Your task to perform on an android device: Empty the shopping cart on bestbuy. Add "bose soundlink" to the cart on bestbuy, then select checkout. Image 0: 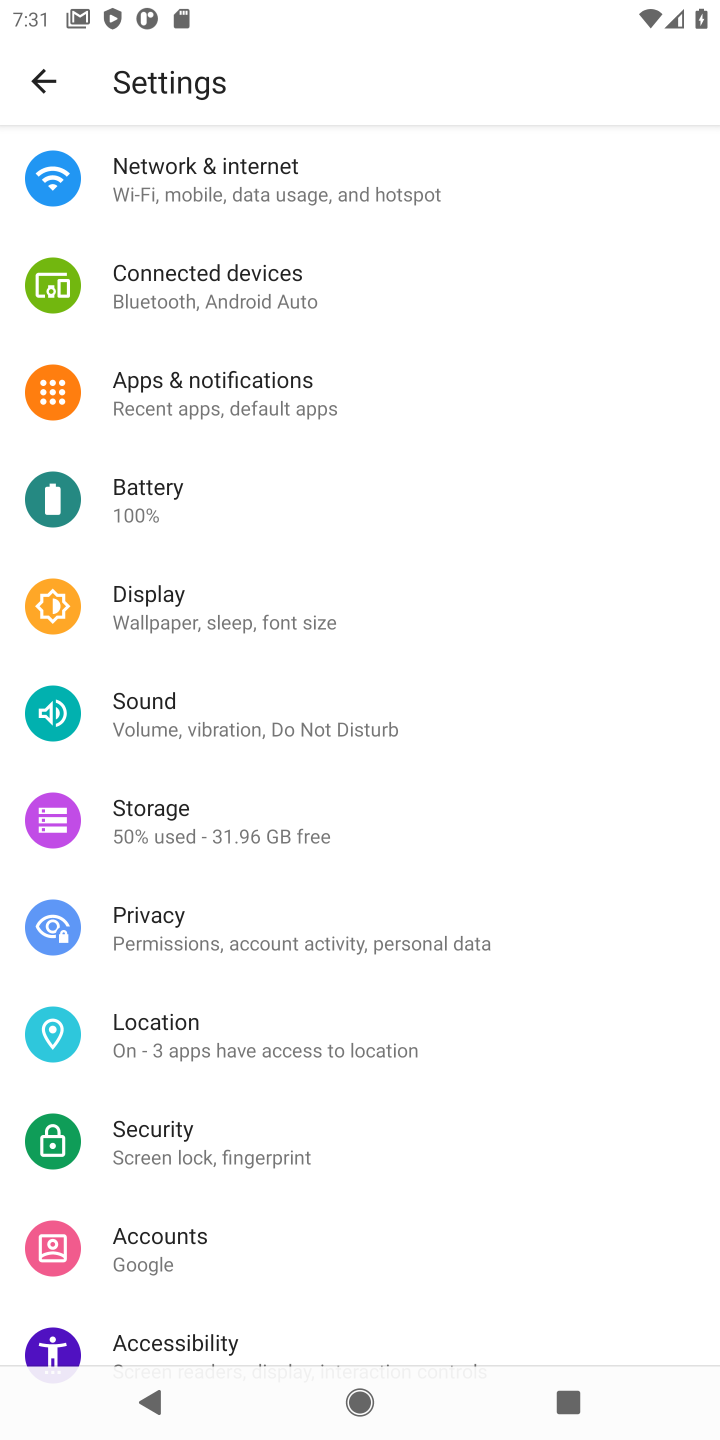
Step 0: press home button
Your task to perform on an android device: Empty the shopping cart on bestbuy. Add "bose soundlink" to the cart on bestbuy, then select checkout. Image 1: 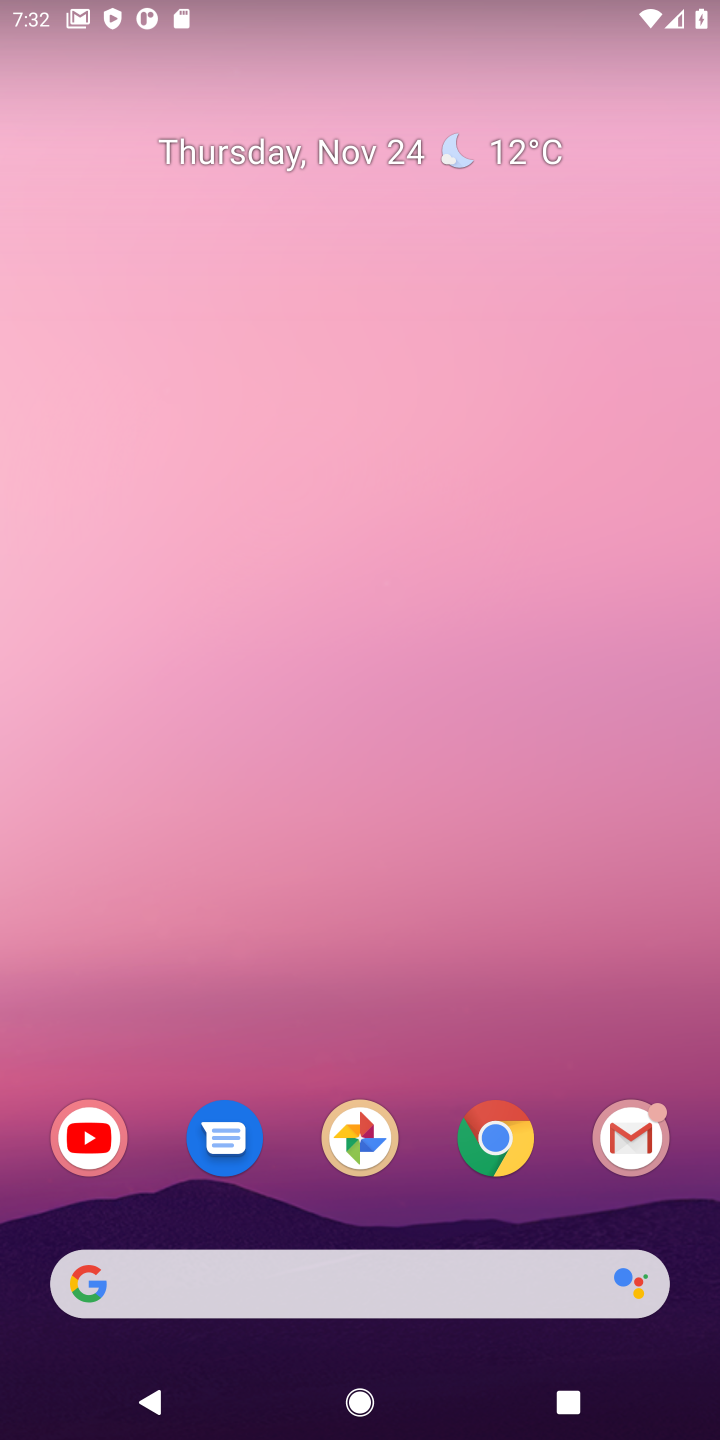
Step 1: click (499, 1136)
Your task to perform on an android device: Empty the shopping cart on bestbuy. Add "bose soundlink" to the cart on bestbuy, then select checkout. Image 2: 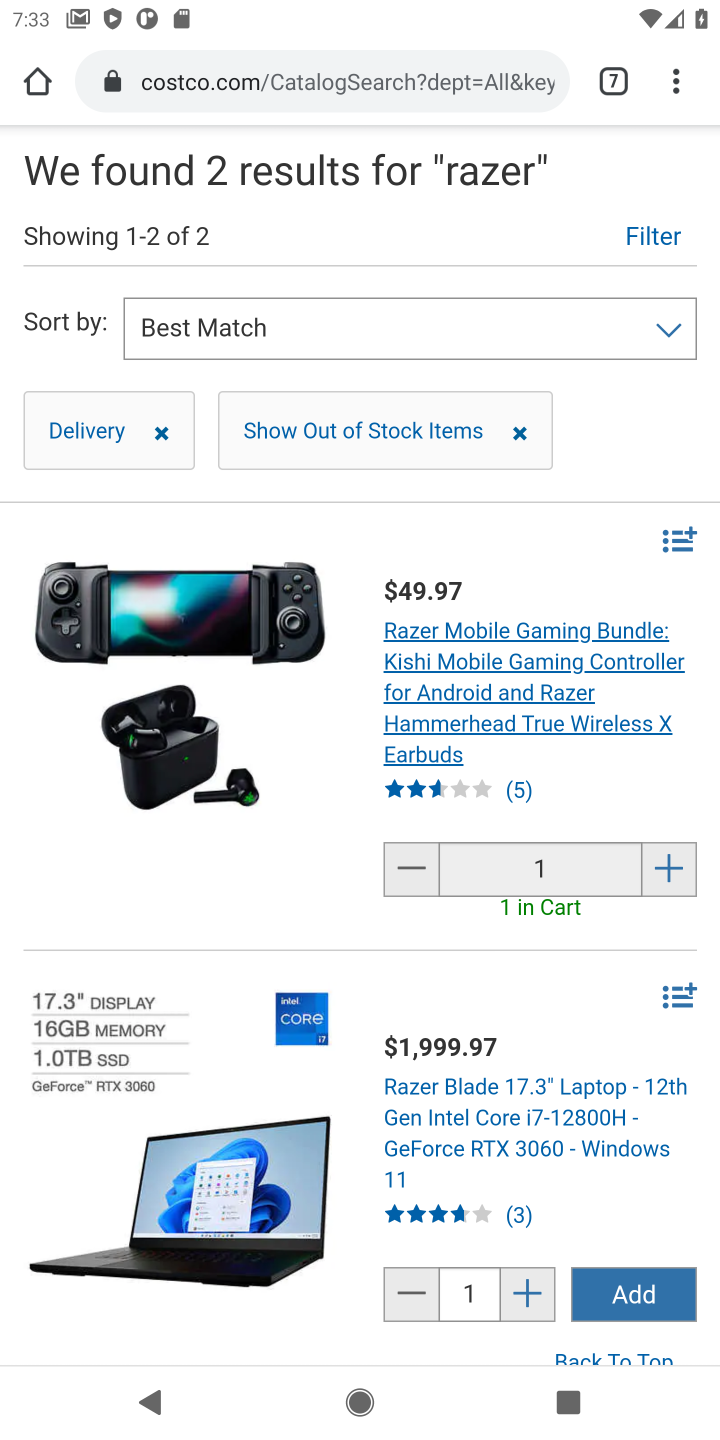
Step 2: click (609, 78)
Your task to perform on an android device: Empty the shopping cart on bestbuy. Add "bose soundlink" to the cart on bestbuy, then select checkout. Image 3: 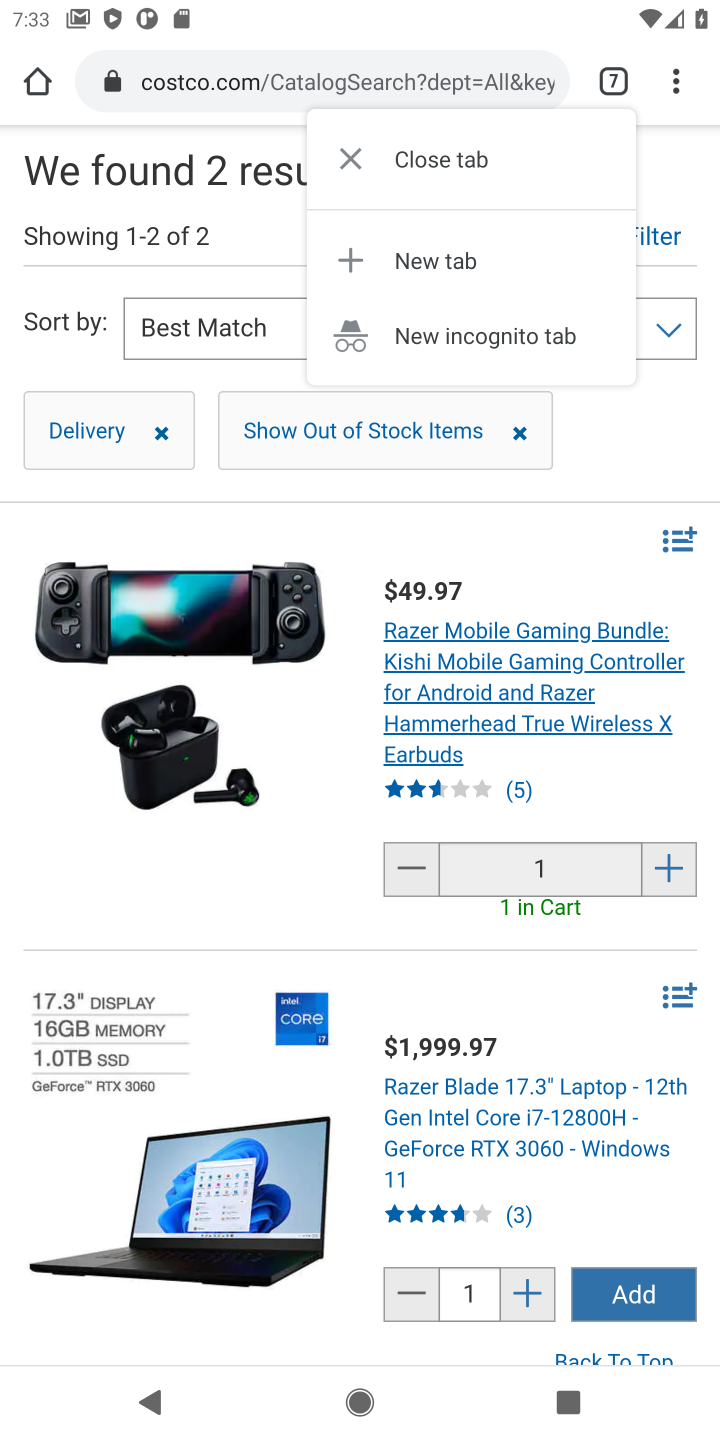
Step 3: click (463, 162)
Your task to perform on an android device: Empty the shopping cart on bestbuy. Add "bose soundlink" to the cart on bestbuy, then select checkout. Image 4: 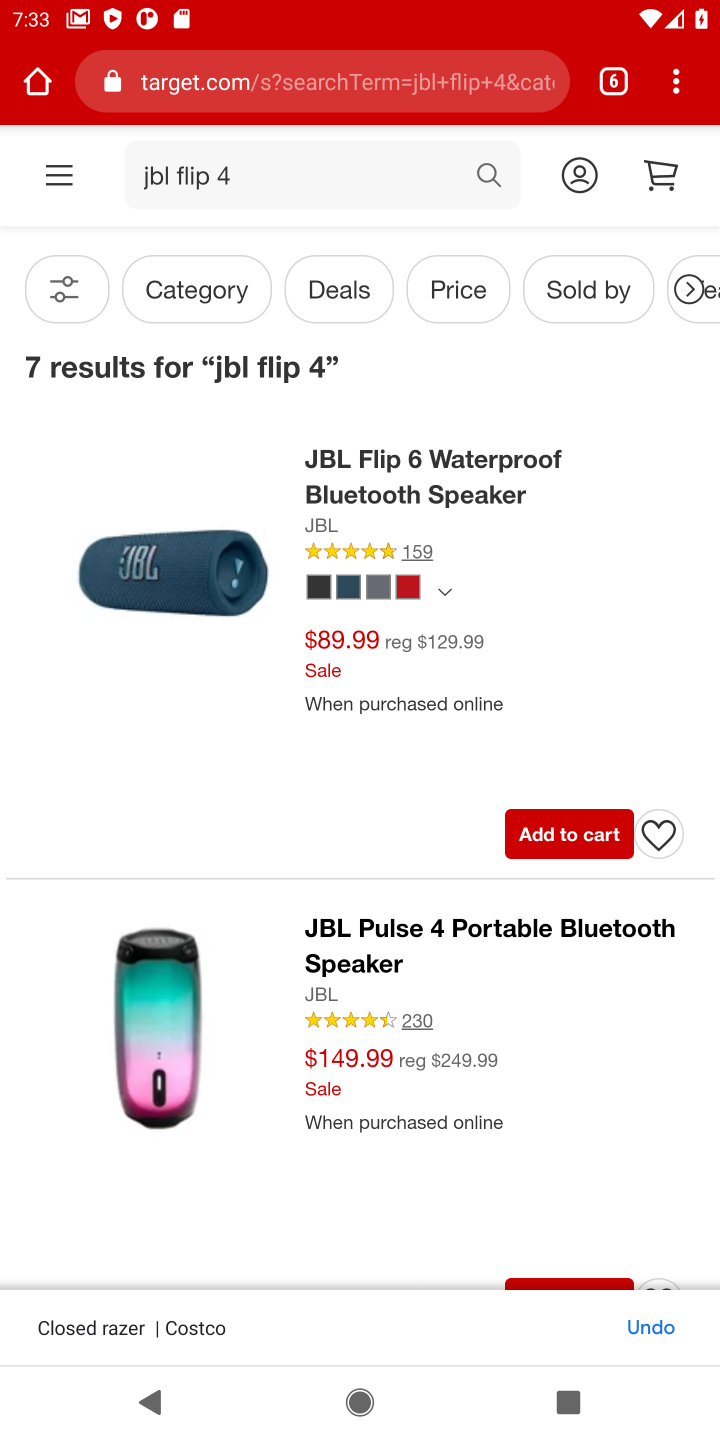
Step 4: click (620, 80)
Your task to perform on an android device: Empty the shopping cart on bestbuy. Add "bose soundlink" to the cart on bestbuy, then select checkout. Image 5: 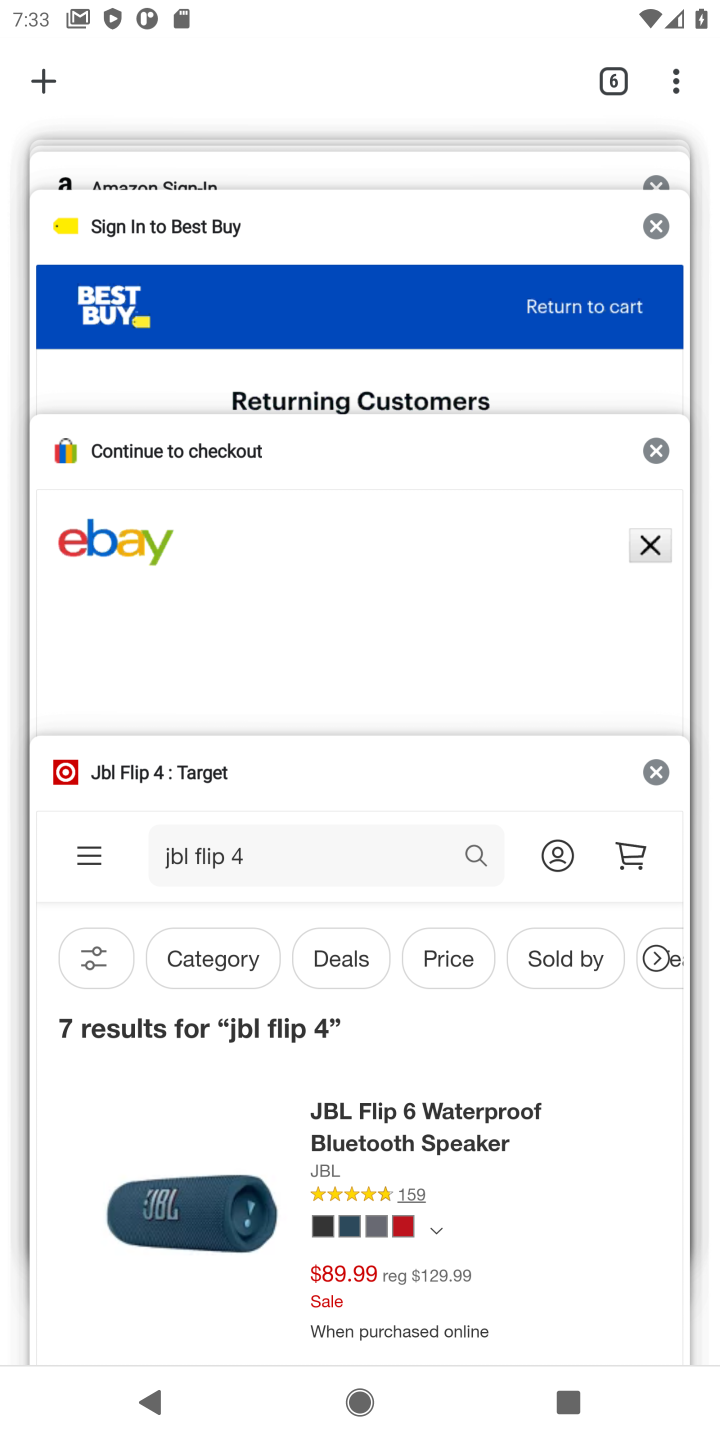
Step 5: click (57, 87)
Your task to perform on an android device: Empty the shopping cart on bestbuy. Add "bose soundlink" to the cart on bestbuy, then select checkout. Image 6: 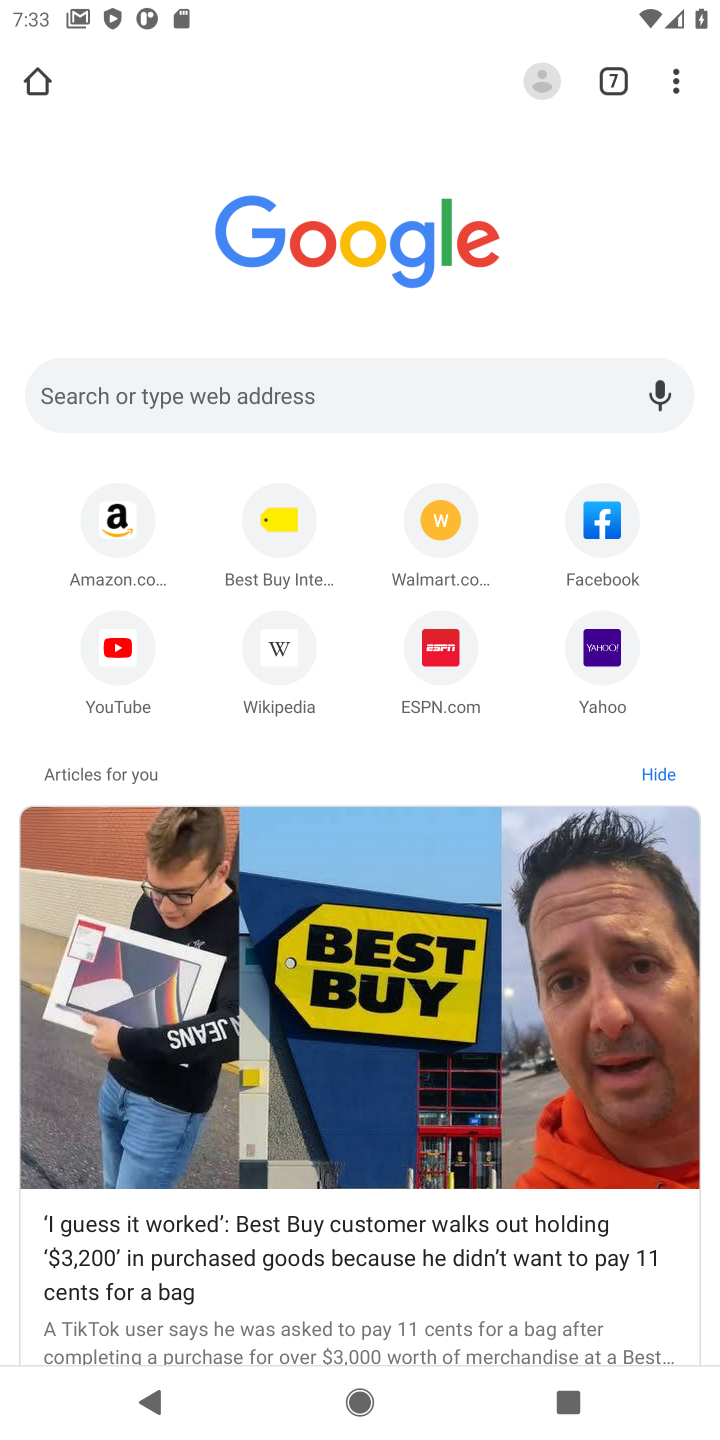
Step 6: click (251, 383)
Your task to perform on an android device: Empty the shopping cart on bestbuy. Add "bose soundlink" to the cart on bestbuy, then select checkout. Image 7: 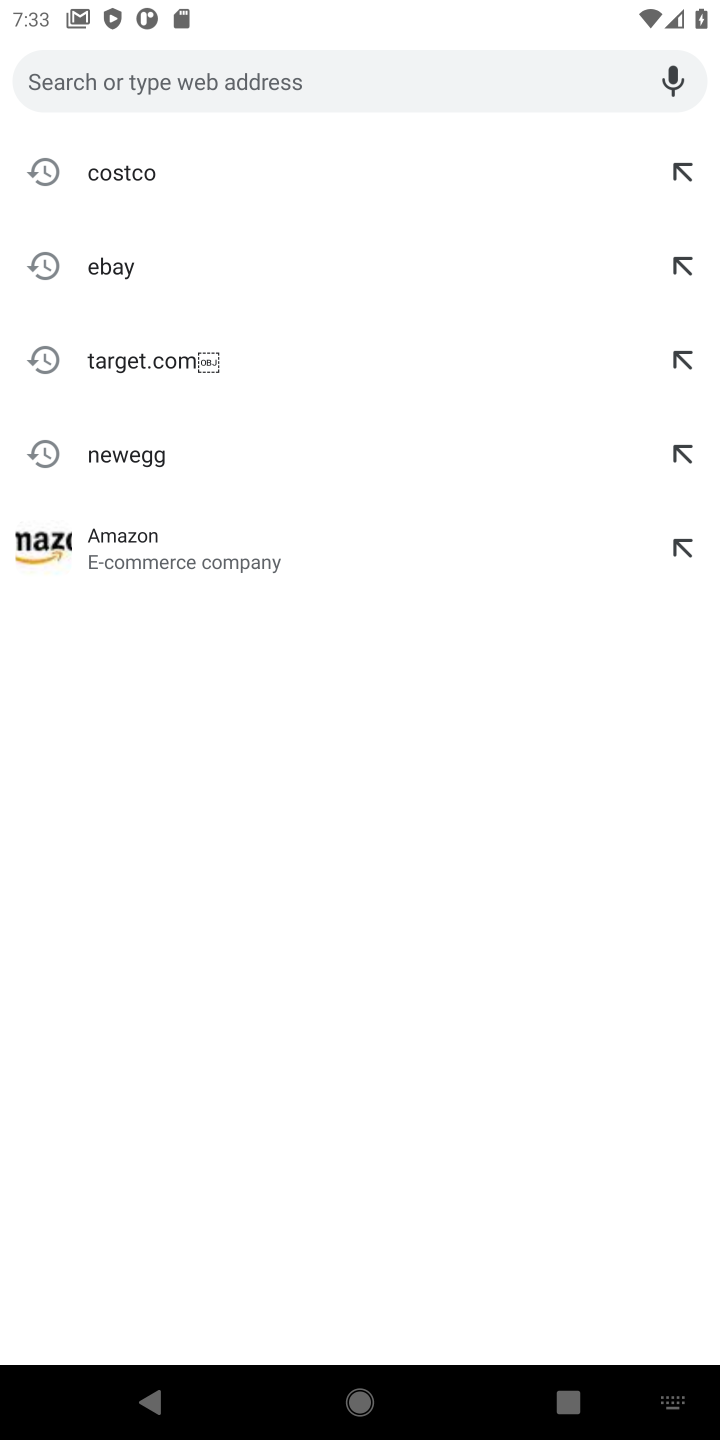
Step 7: click (212, 80)
Your task to perform on an android device: Empty the shopping cart on bestbuy. Add "bose soundlink" to the cart on bestbuy, then select checkout. Image 8: 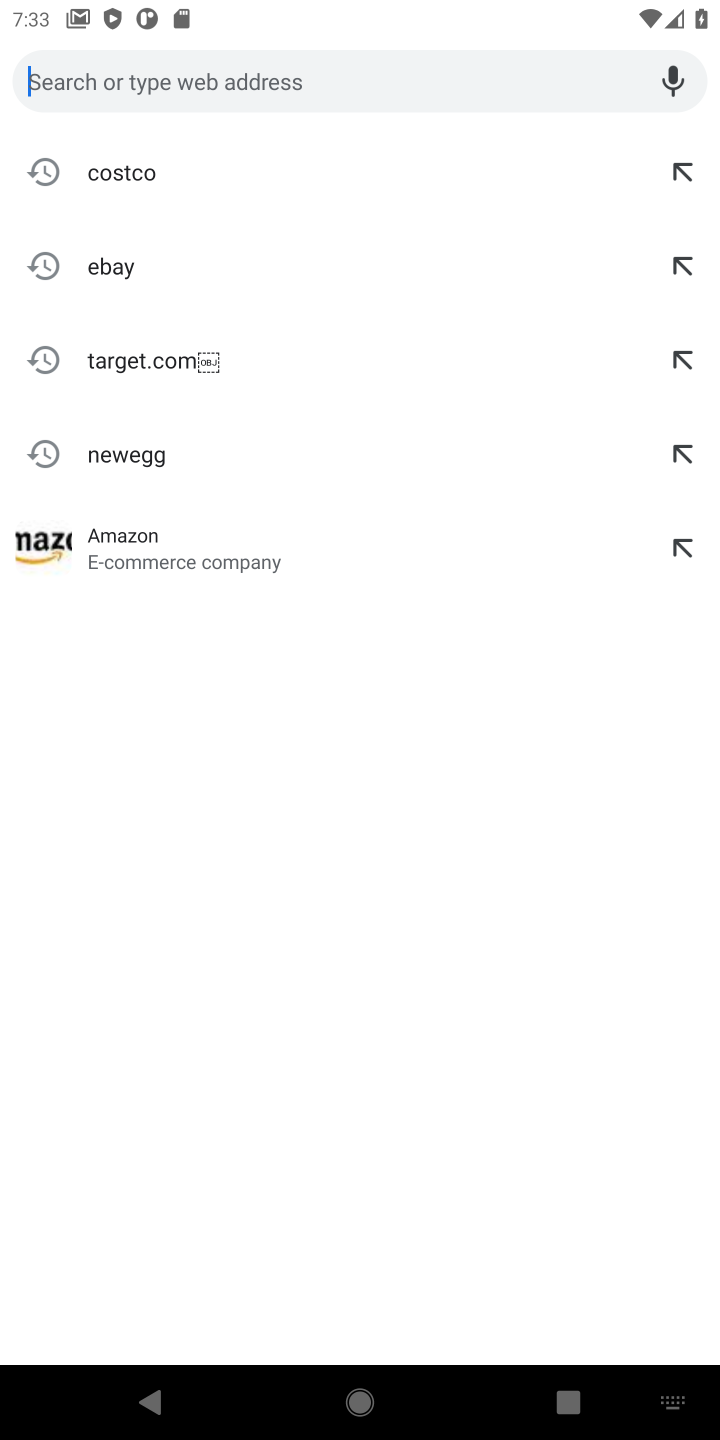
Step 8: click (402, 90)
Your task to perform on an android device: Empty the shopping cart on bestbuy. Add "bose soundlink" to the cart on bestbuy, then select checkout. Image 9: 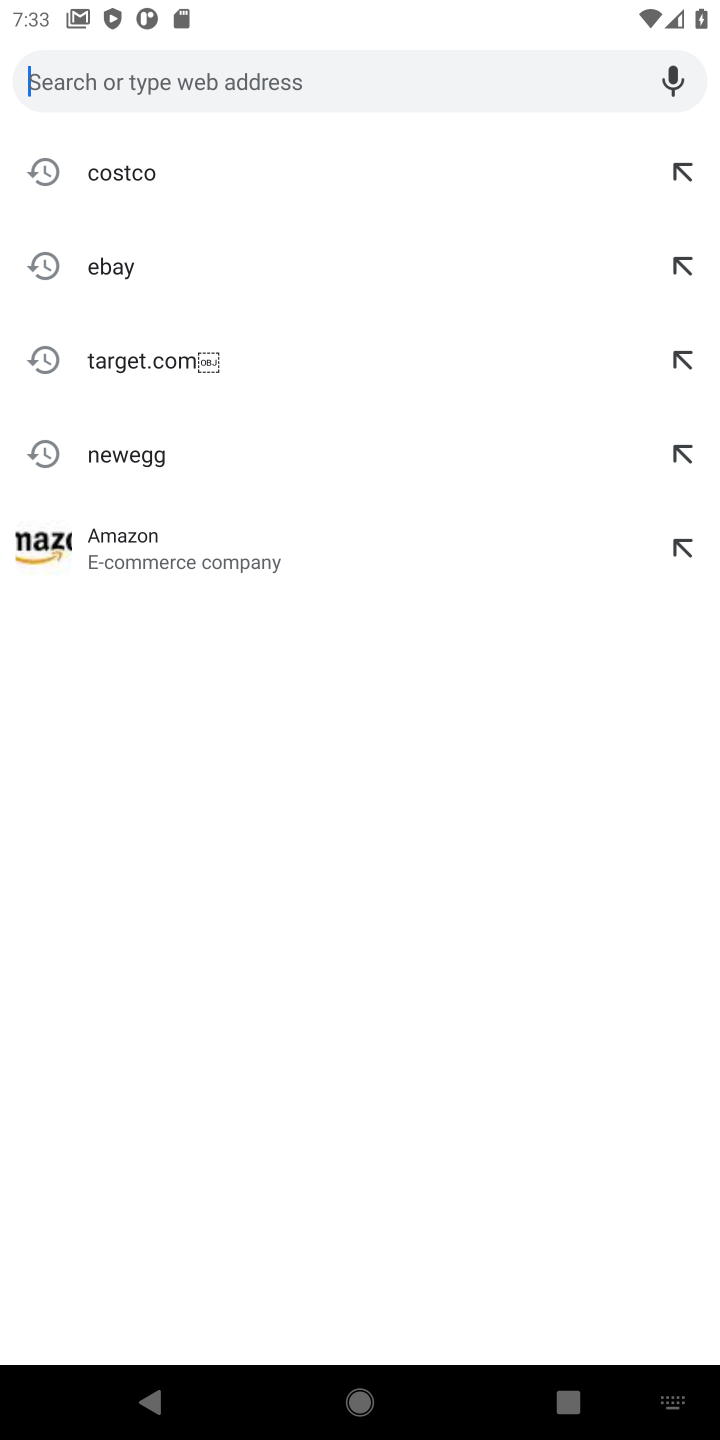
Step 9: type " bestbuy."
Your task to perform on an android device: Empty the shopping cart on bestbuy. Add "bose soundlink" to the cart on bestbuy, then select checkout. Image 10: 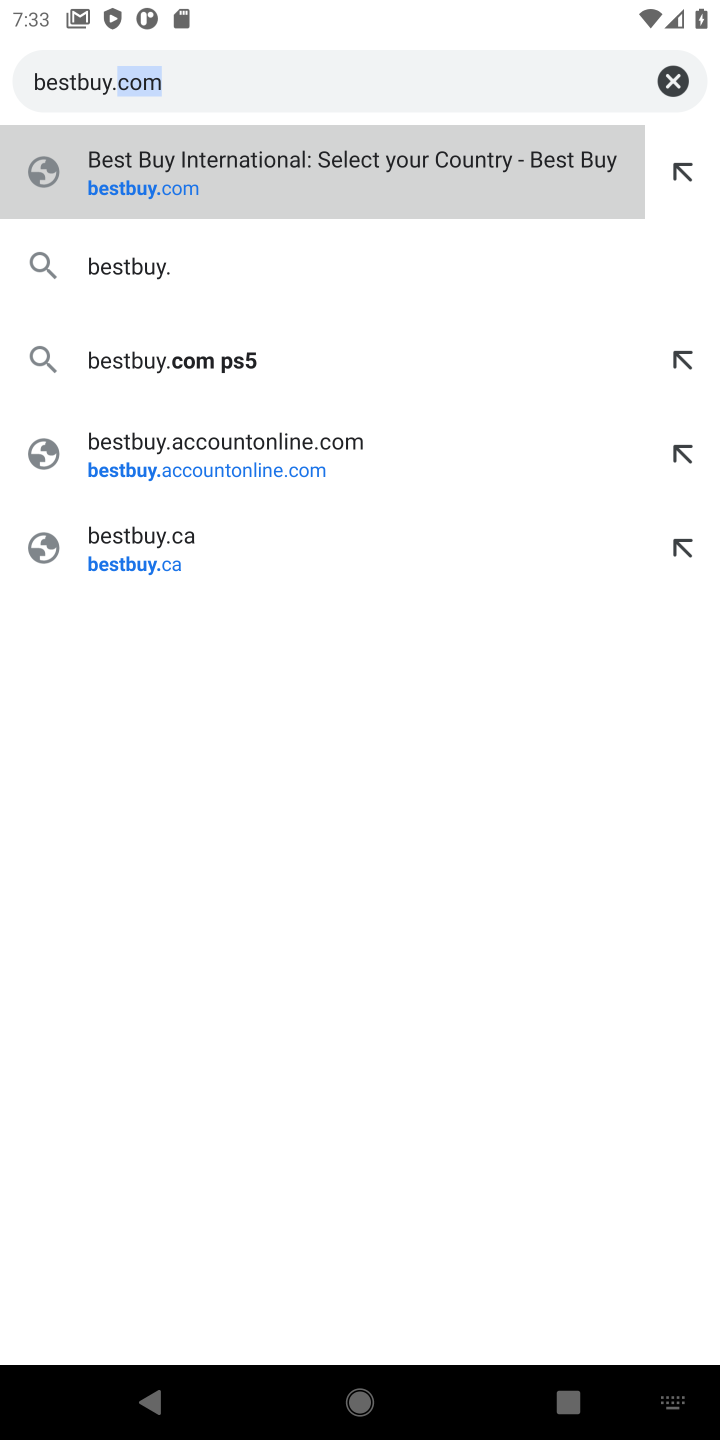
Step 10: click (292, 166)
Your task to perform on an android device: Empty the shopping cart on bestbuy. Add "bose soundlink" to the cart on bestbuy, then select checkout. Image 11: 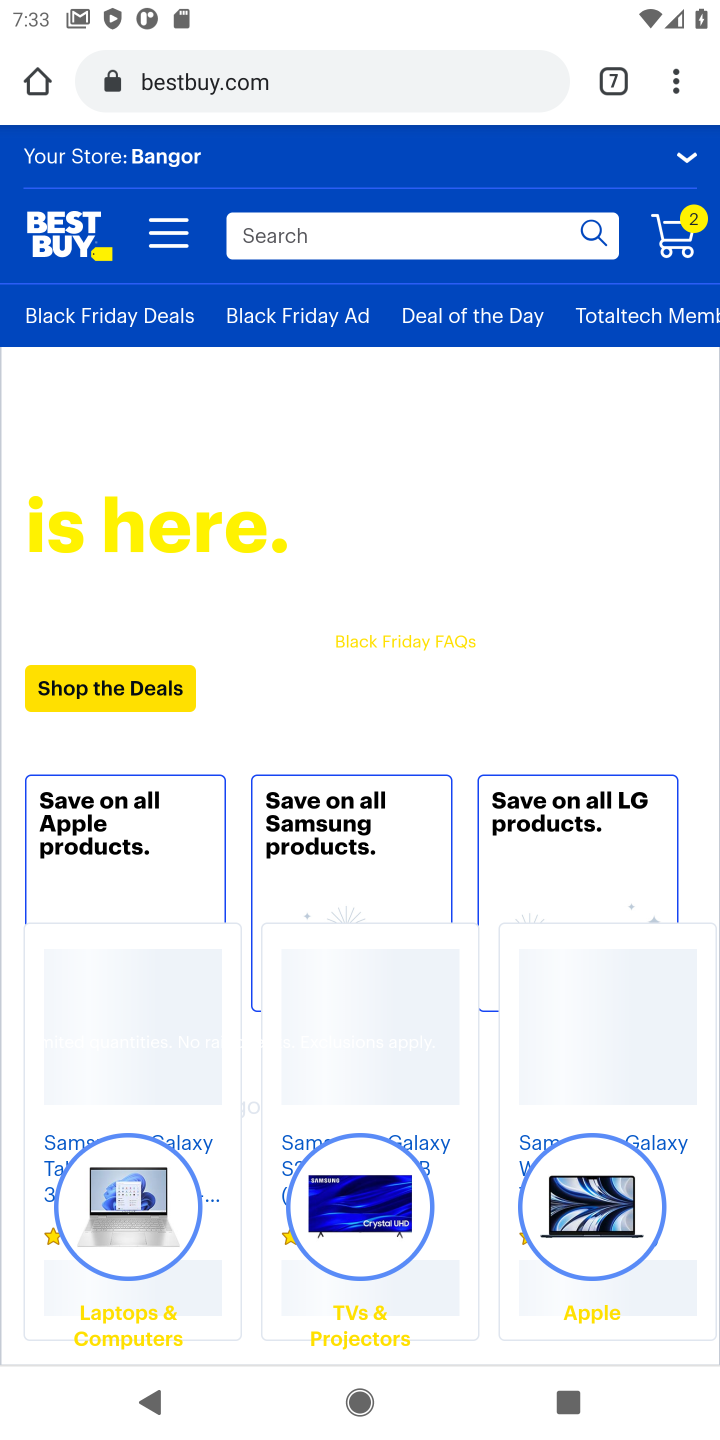
Step 11: click (320, 236)
Your task to perform on an android device: Empty the shopping cart on bestbuy. Add "bose soundlink" to the cart on bestbuy, then select checkout. Image 12: 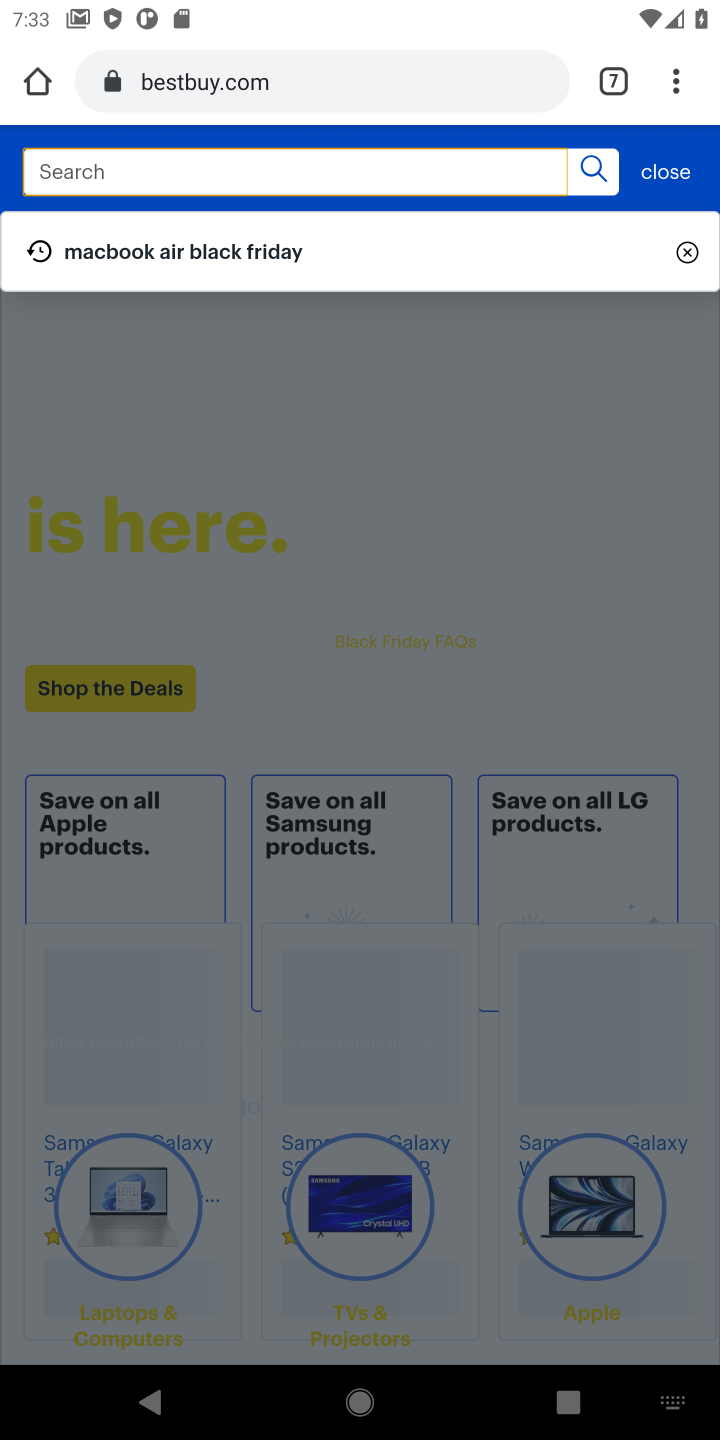
Step 12: click (341, 155)
Your task to perform on an android device: Empty the shopping cart on bestbuy. Add "bose soundlink" to the cart on bestbuy, then select checkout. Image 13: 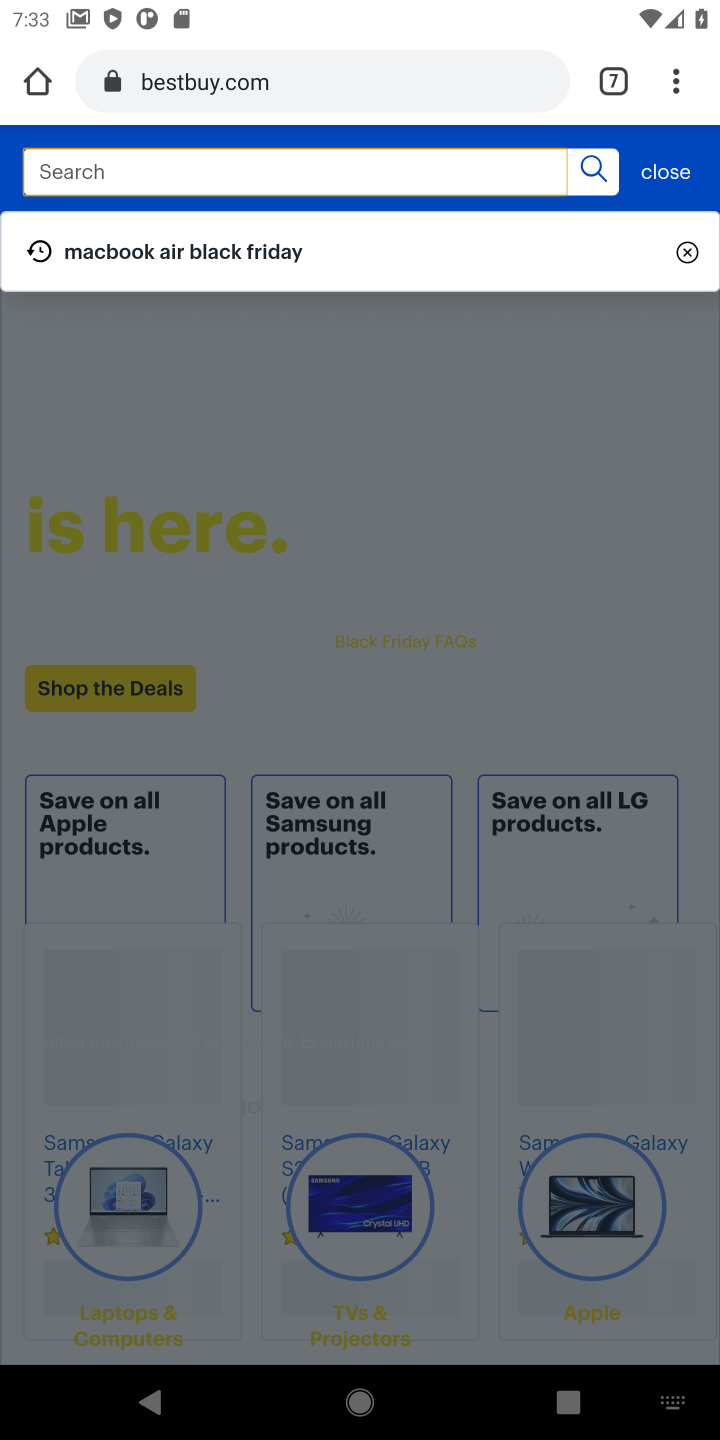
Step 13: type "bose soundlink"
Your task to perform on an android device: Empty the shopping cart on bestbuy. Add "bose soundlink" to the cart on bestbuy, then select checkout. Image 14: 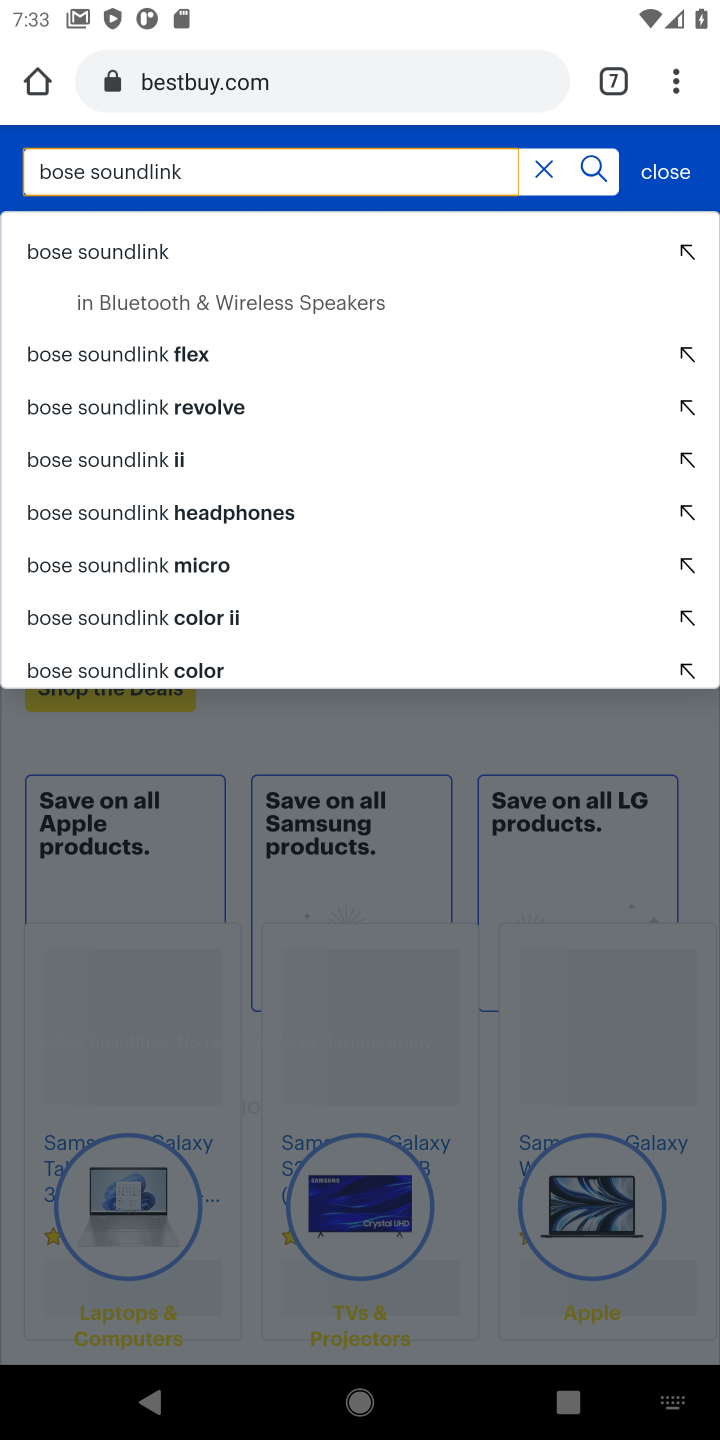
Step 14: click (139, 242)
Your task to perform on an android device: Empty the shopping cart on bestbuy. Add "bose soundlink" to the cart on bestbuy, then select checkout. Image 15: 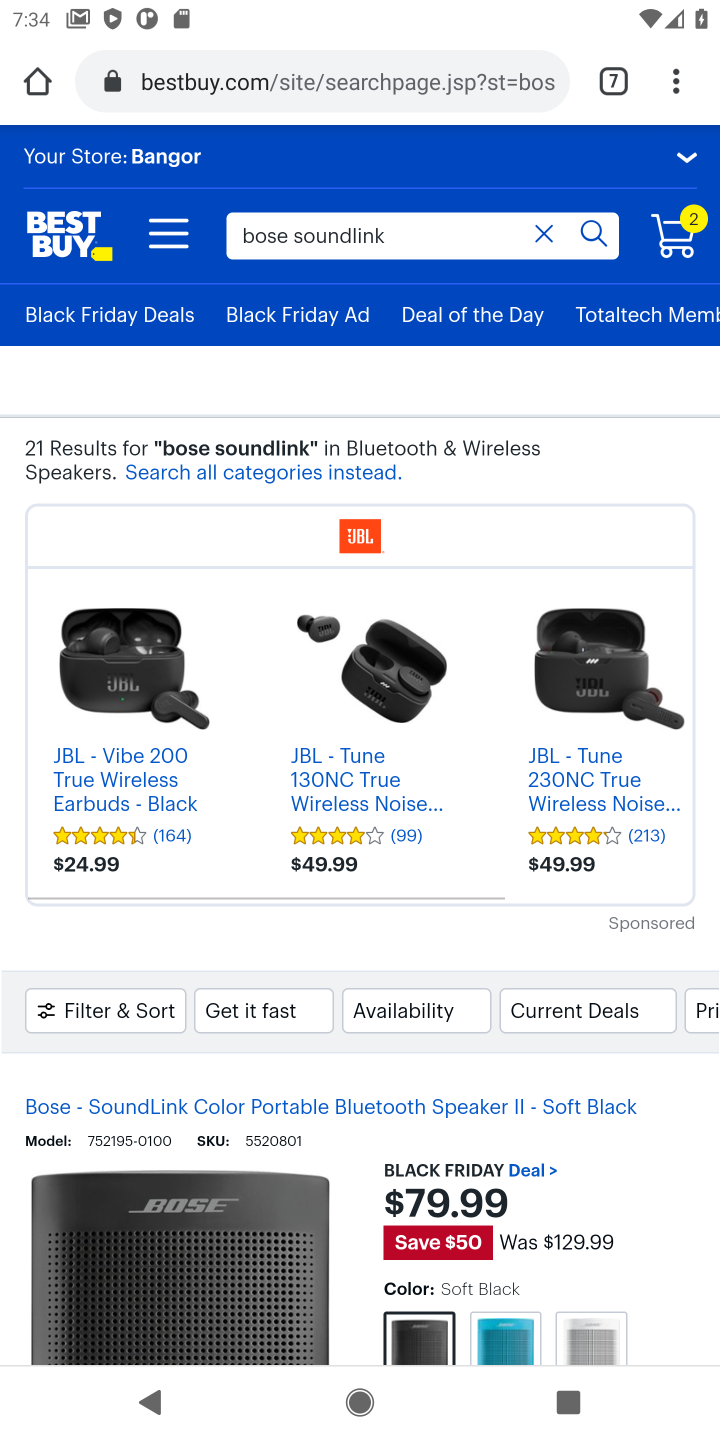
Step 15: drag from (158, 1270) to (314, 798)
Your task to perform on an android device: Empty the shopping cart on bestbuy. Add "bose soundlink" to the cart on bestbuy, then select checkout. Image 16: 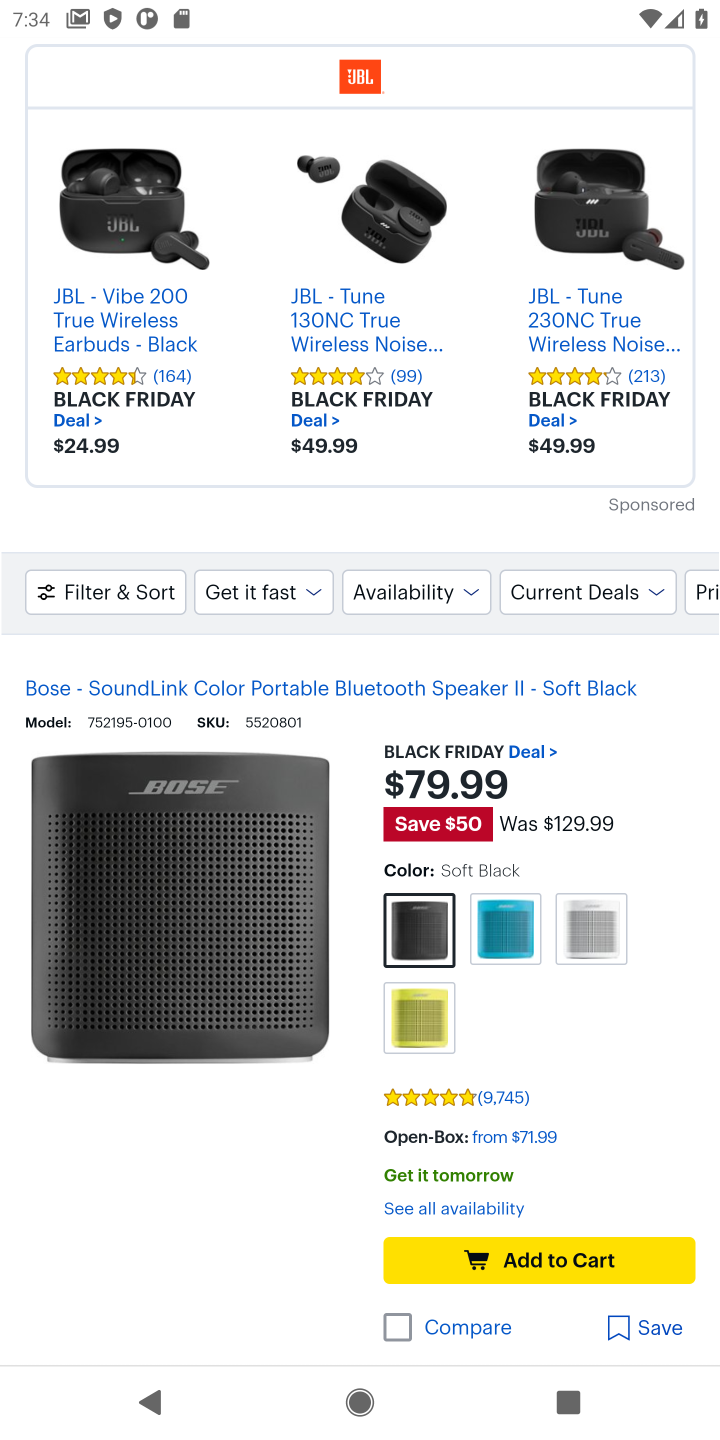
Step 16: click (533, 1265)
Your task to perform on an android device: Empty the shopping cart on bestbuy. Add "bose soundlink" to the cart on bestbuy, then select checkout. Image 17: 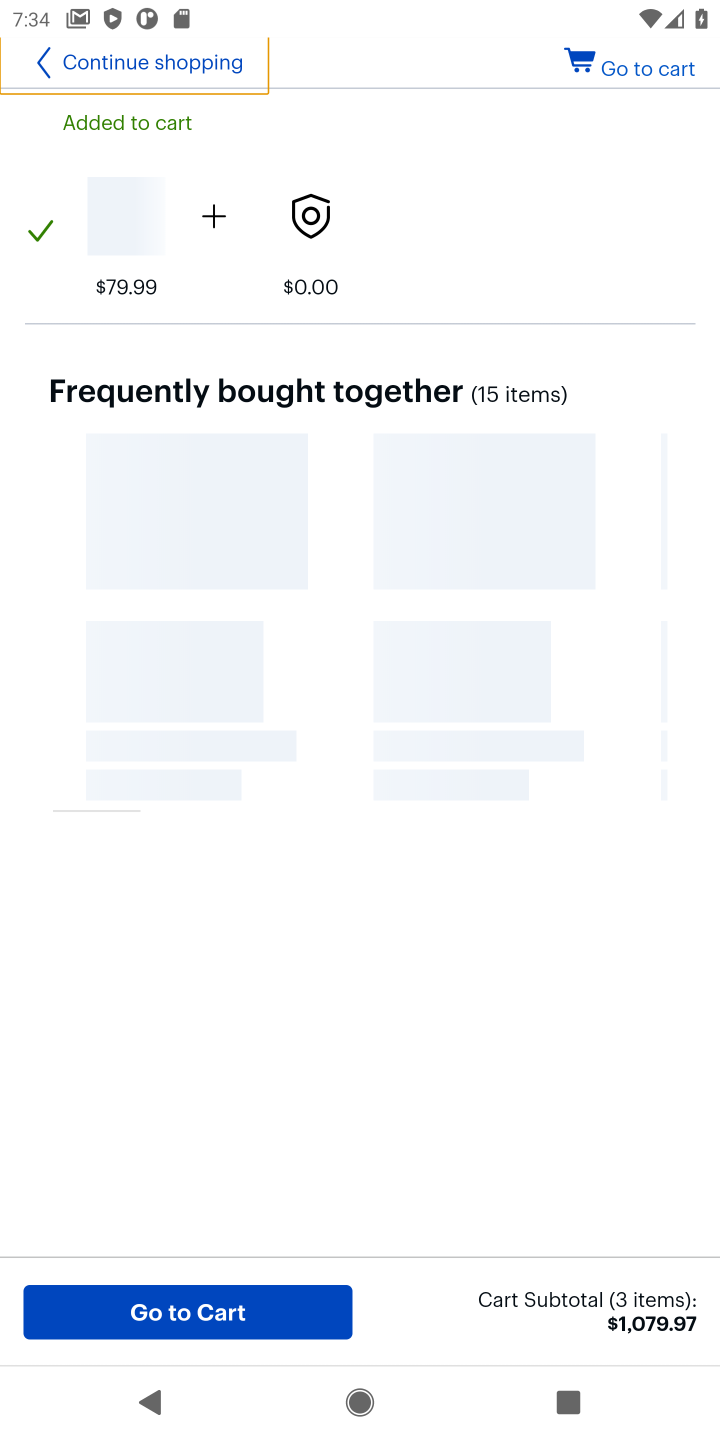
Step 17: click (187, 1314)
Your task to perform on an android device: Empty the shopping cart on bestbuy. Add "bose soundlink" to the cart on bestbuy, then select checkout. Image 18: 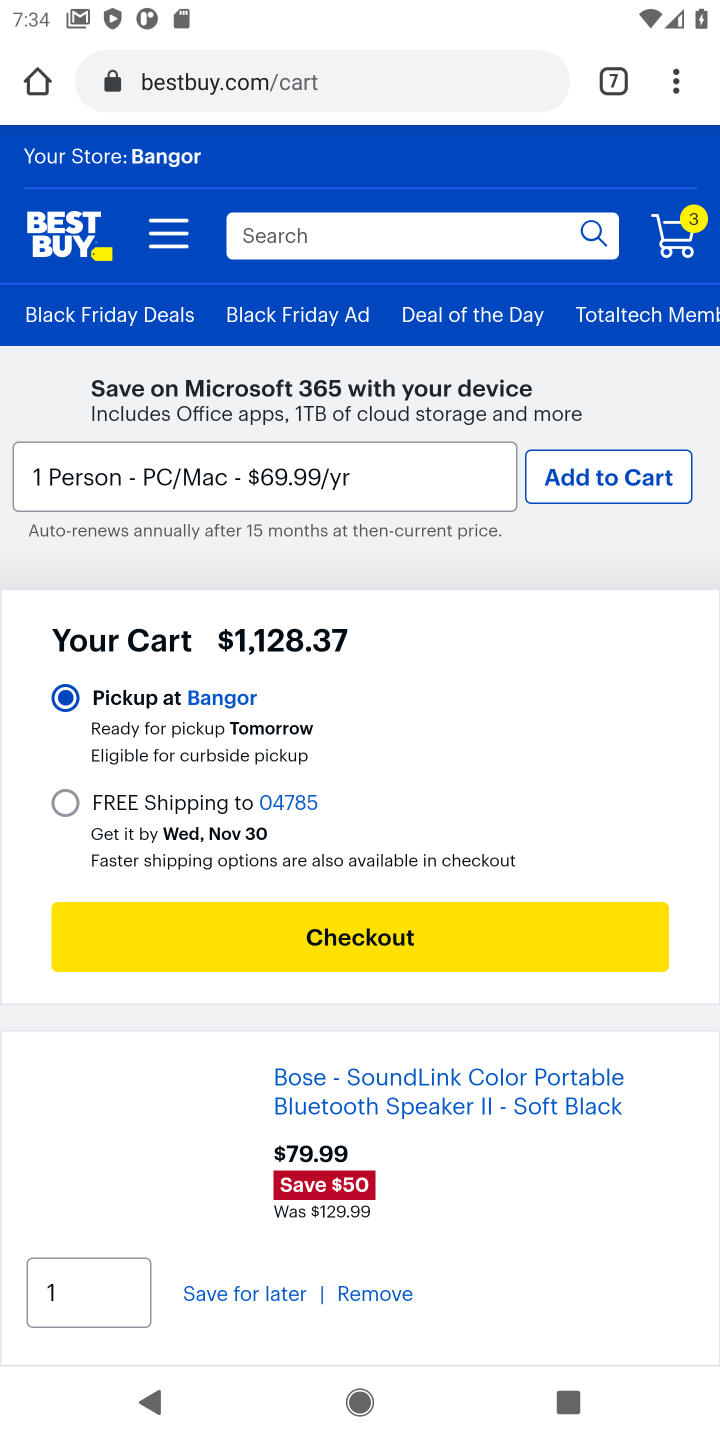
Step 18: click (402, 941)
Your task to perform on an android device: Empty the shopping cart on bestbuy. Add "bose soundlink" to the cart on bestbuy, then select checkout. Image 19: 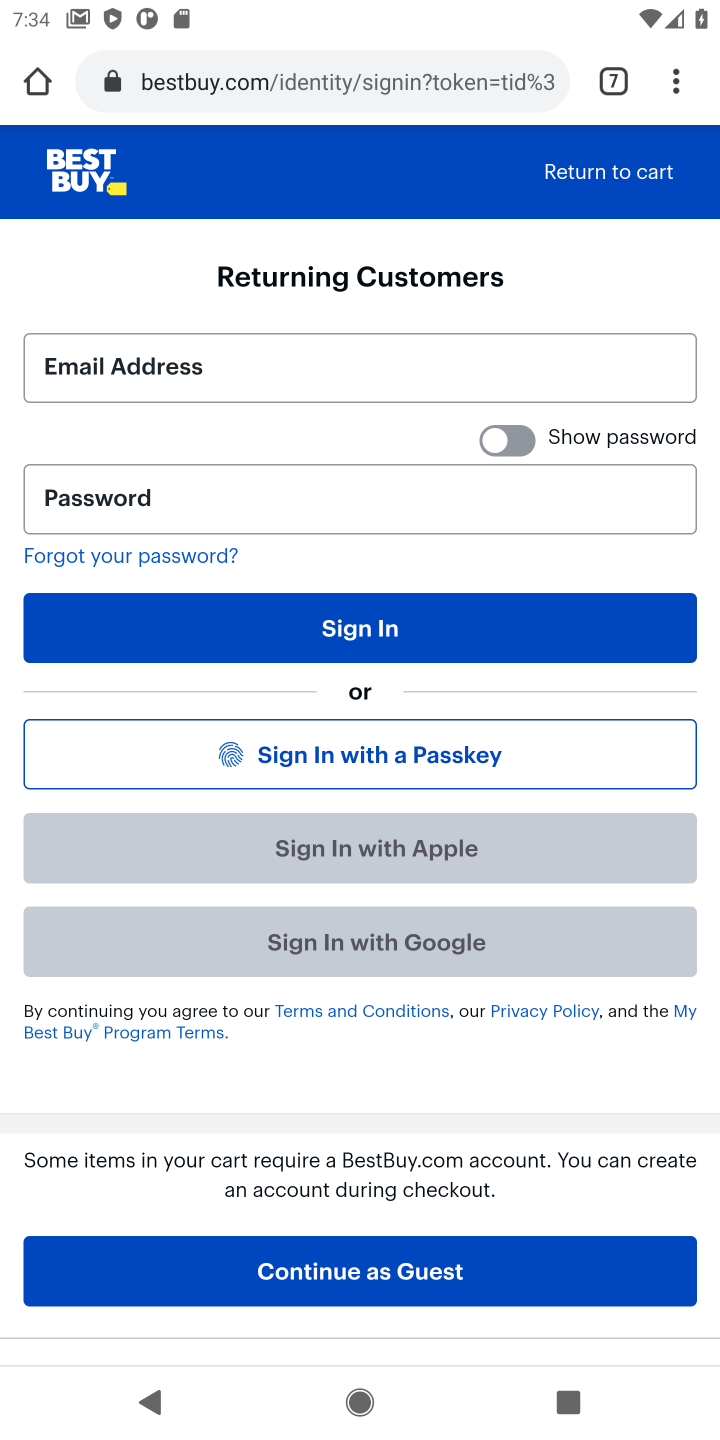
Step 19: task complete